Your task to perform on an android device: find snoozed emails in the gmail app Image 0: 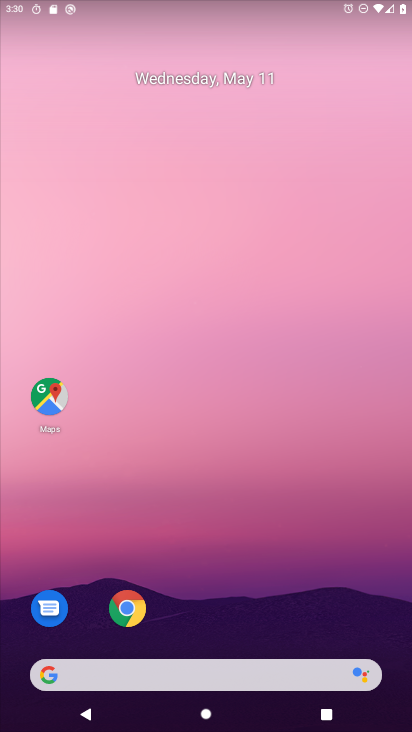
Step 0: drag from (256, 614) to (262, 126)
Your task to perform on an android device: find snoozed emails in the gmail app Image 1: 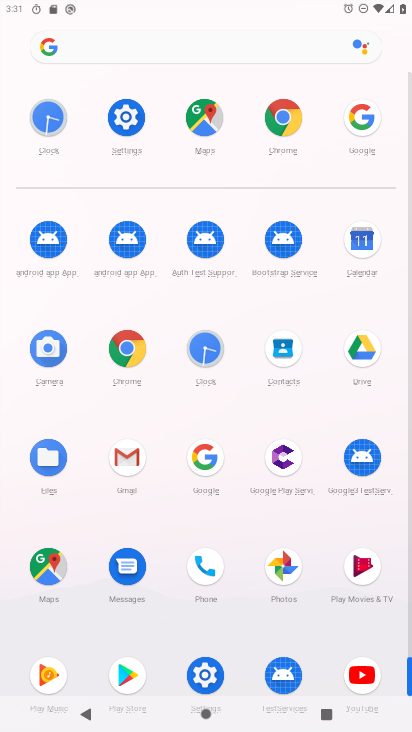
Step 1: click (133, 483)
Your task to perform on an android device: find snoozed emails in the gmail app Image 2: 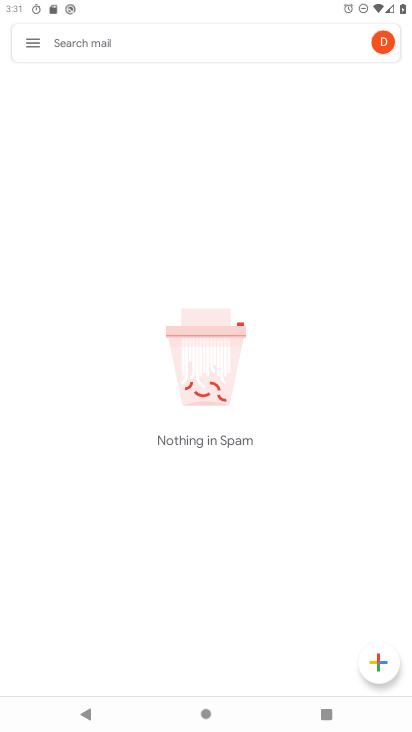
Step 2: click (32, 39)
Your task to perform on an android device: find snoozed emails in the gmail app Image 3: 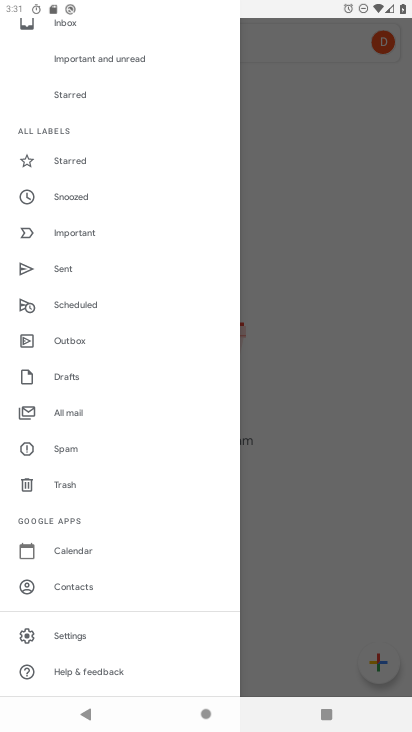
Step 3: click (59, 202)
Your task to perform on an android device: find snoozed emails in the gmail app Image 4: 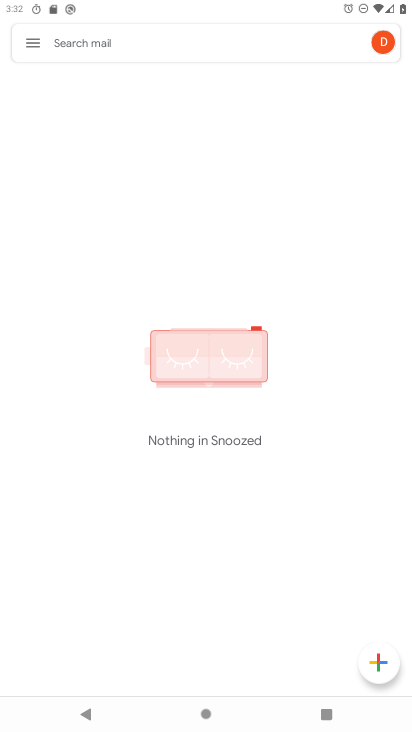
Step 4: task complete